Your task to perform on an android device: change the clock display to analog Image 0: 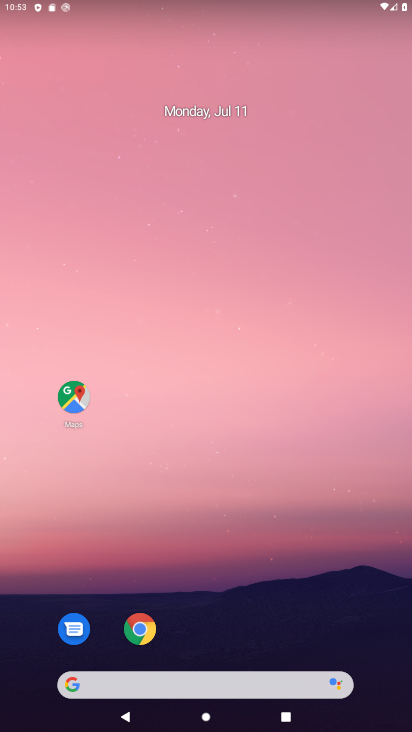
Step 0: drag from (222, 601) to (171, 42)
Your task to perform on an android device: change the clock display to analog Image 1: 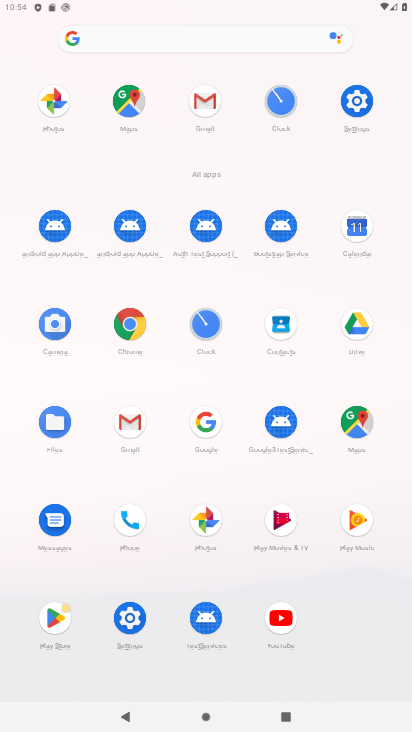
Step 1: drag from (260, 284) to (255, 159)
Your task to perform on an android device: change the clock display to analog Image 2: 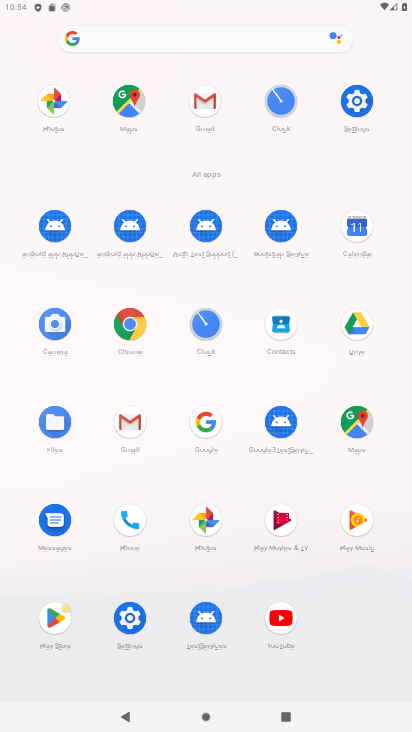
Step 2: click (208, 327)
Your task to perform on an android device: change the clock display to analog Image 3: 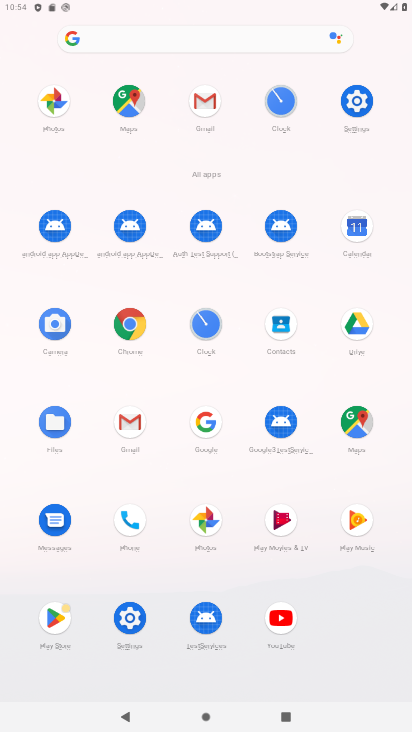
Step 3: click (213, 327)
Your task to perform on an android device: change the clock display to analog Image 4: 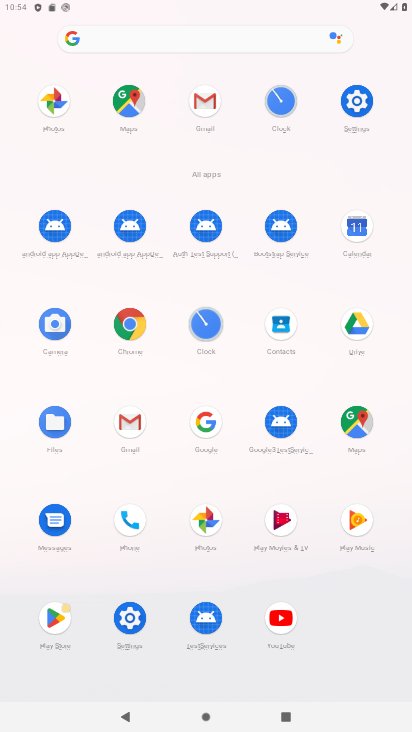
Step 4: click (214, 327)
Your task to perform on an android device: change the clock display to analog Image 5: 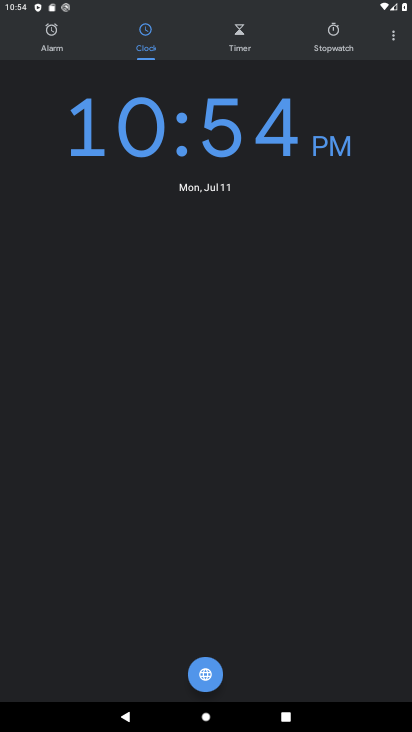
Step 5: click (402, 27)
Your task to perform on an android device: change the clock display to analog Image 6: 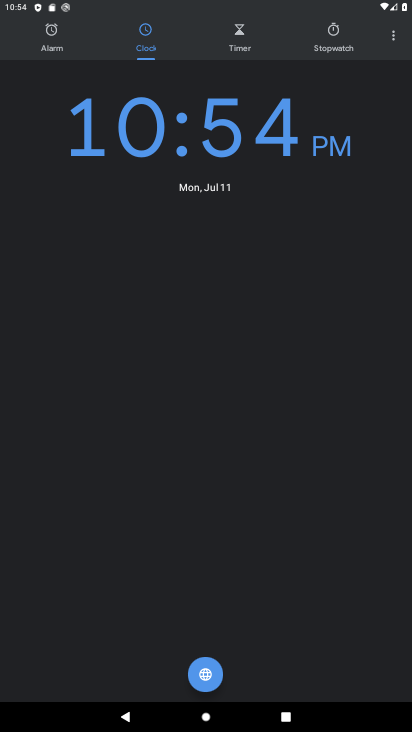
Step 6: click (398, 30)
Your task to perform on an android device: change the clock display to analog Image 7: 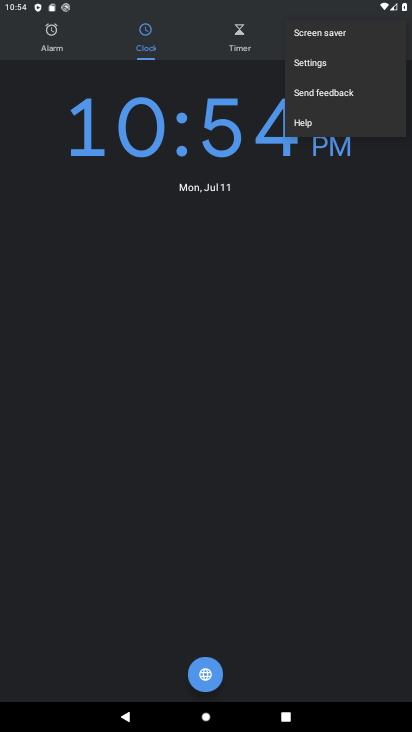
Step 7: click (397, 30)
Your task to perform on an android device: change the clock display to analog Image 8: 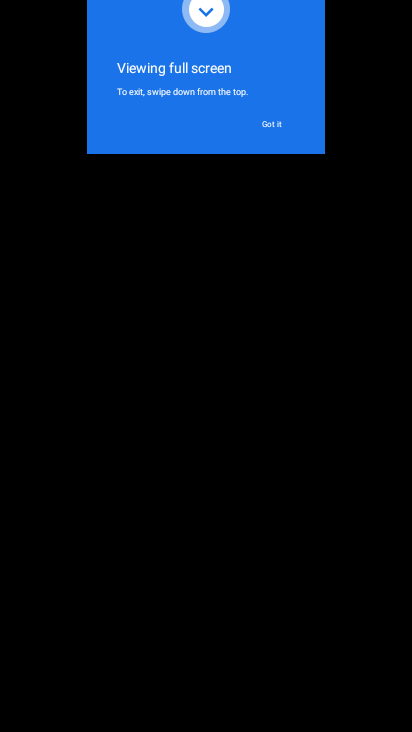
Step 8: click (263, 137)
Your task to perform on an android device: change the clock display to analog Image 9: 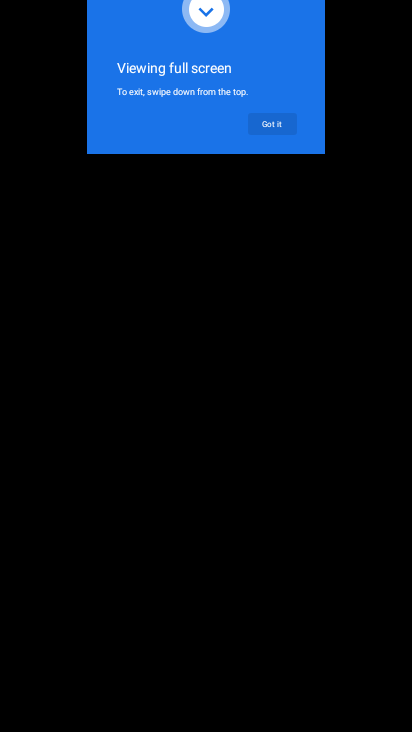
Step 9: click (275, 124)
Your task to perform on an android device: change the clock display to analog Image 10: 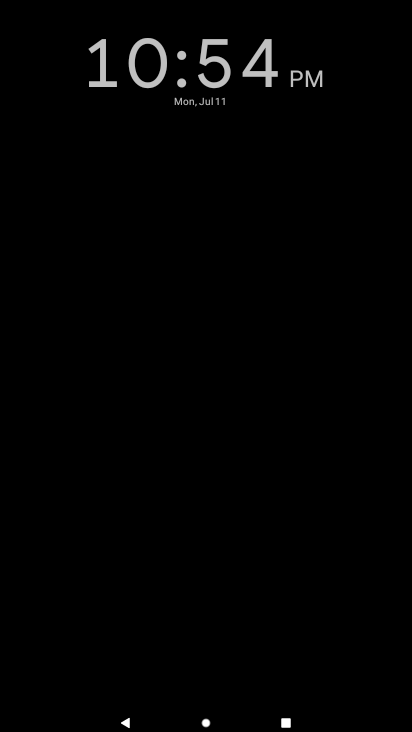
Step 10: click (275, 124)
Your task to perform on an android device: change the clock display to analog Image 11: 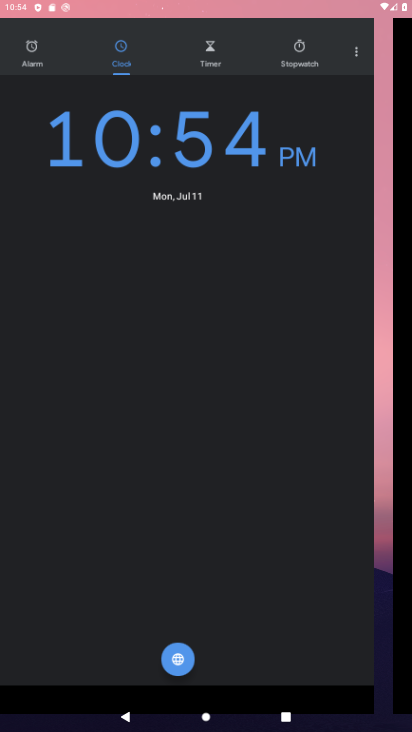
Step 11: click (275, 124)
Your task to perform on an android device: change the clock display to analog Image 12: 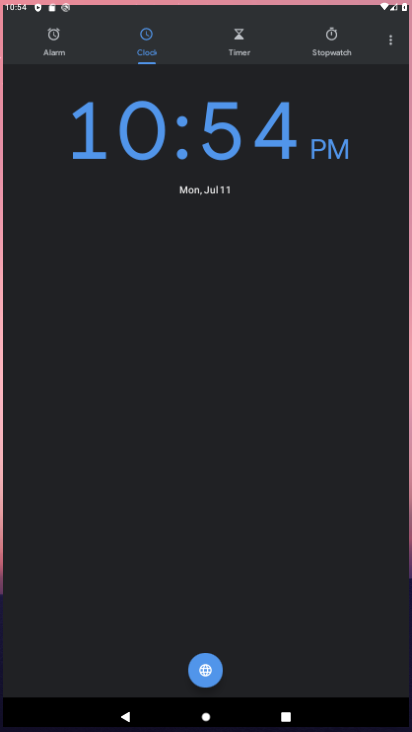
Step 12: click (275, 124)
Your task to perform on an android device: change the clock display to analog Image 13: 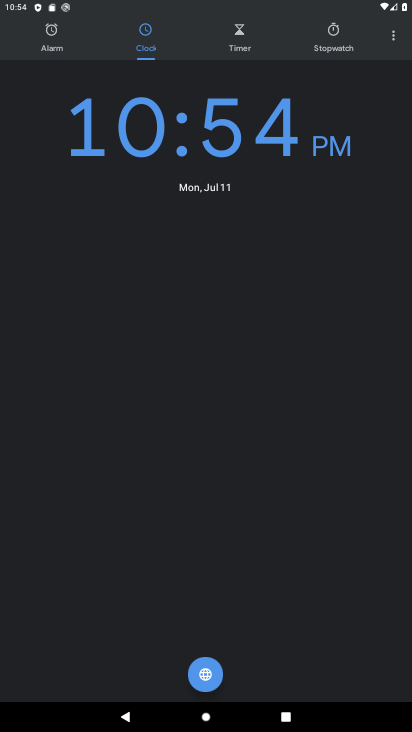
Step 13: click (389, 37)
Your task to perform on an android device: change the clock display to analog Image 14: 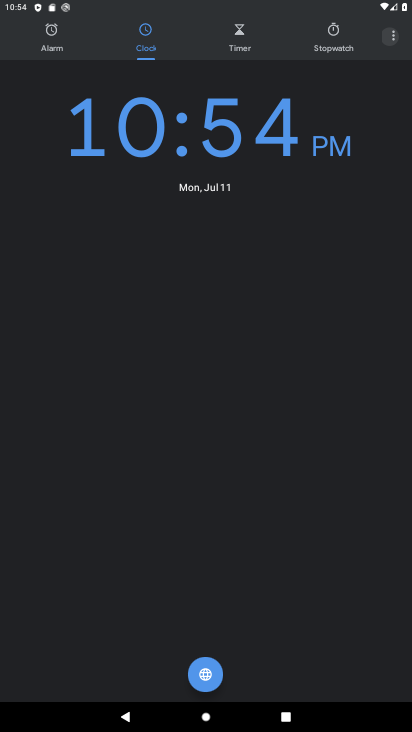
Step 14: click (390, 38)
Your task to perform on an android device: change the clock display to analog Image 15: 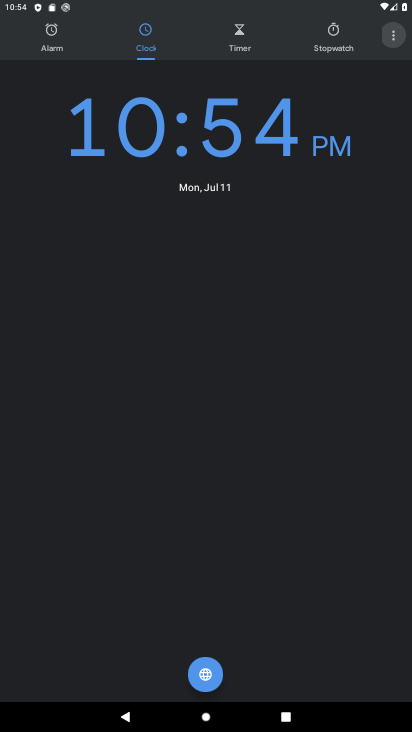
Step 15: click (390, 38)
Your task to perform on an android device: change the clock display to analog Image 16: 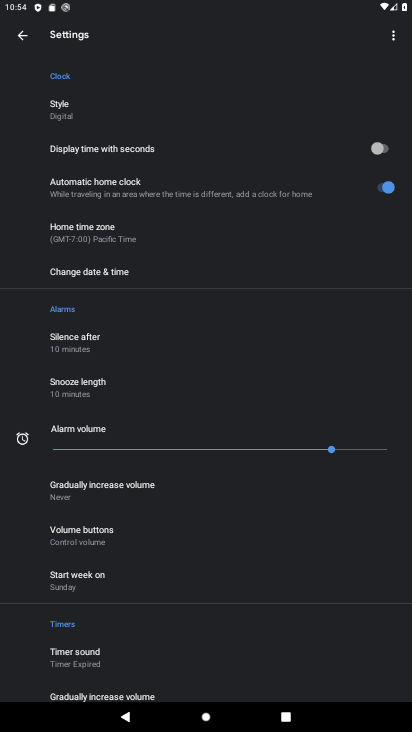
Step 16: click (65, 100)
Your task to perform on an android device: change the clock display to analog Image 17: 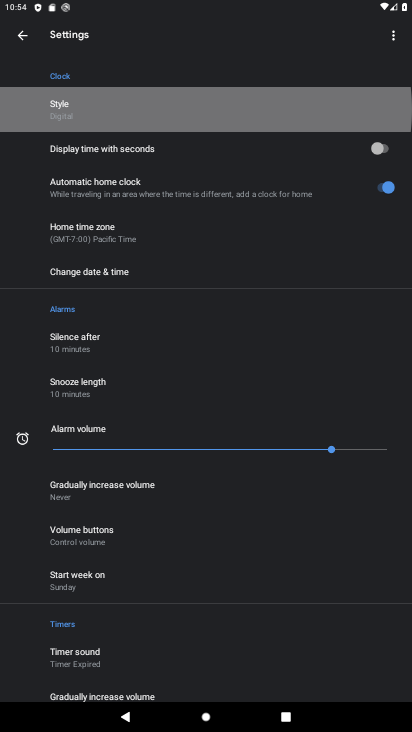
Step 17: click (65, 100)
Your task to perform on an android device: change the clock display to analog Image 18: 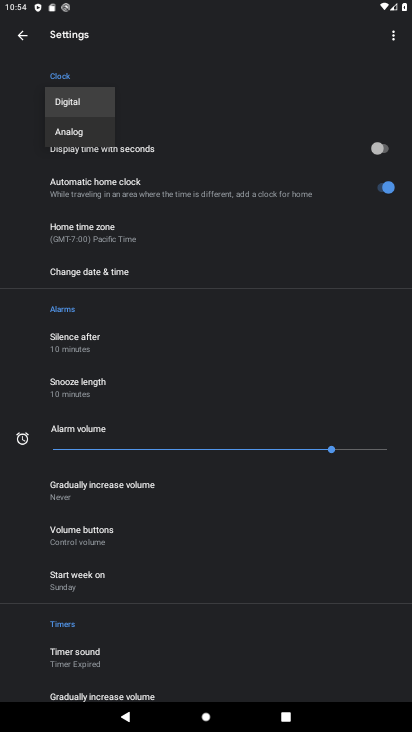
Step 18: click (64, 101)
Your task to perform on an android device: change the clock display to analog Image 19: 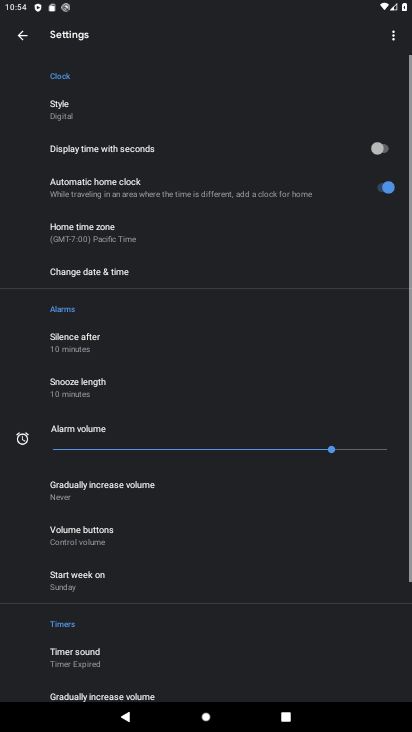
Step 19: click (57, 100)
Your task to perform on an android device: change the clock display to analog Image 20: 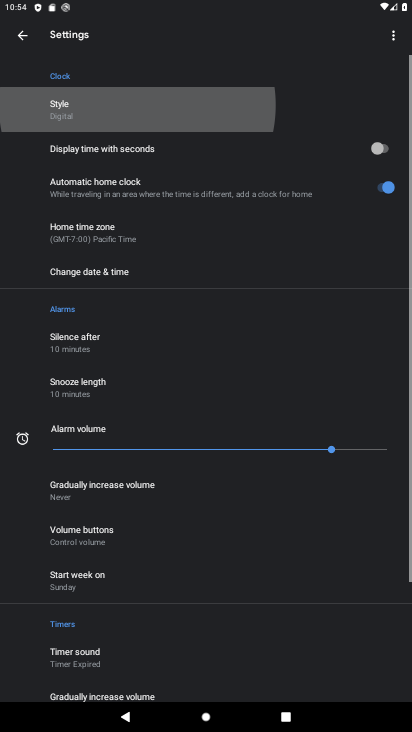
Step 20: click (63, 105)
Your task to perform on an android device: change the clock display to analog Image 21: 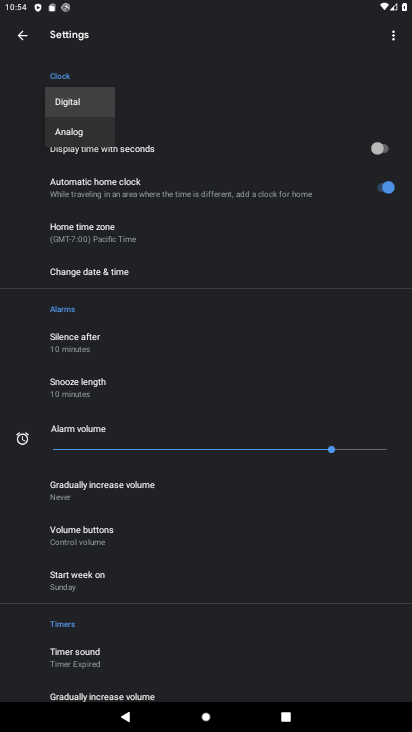
Step 21: click (80, 127)
Your task to perform on an android device: change the clock display to analog Image 22: 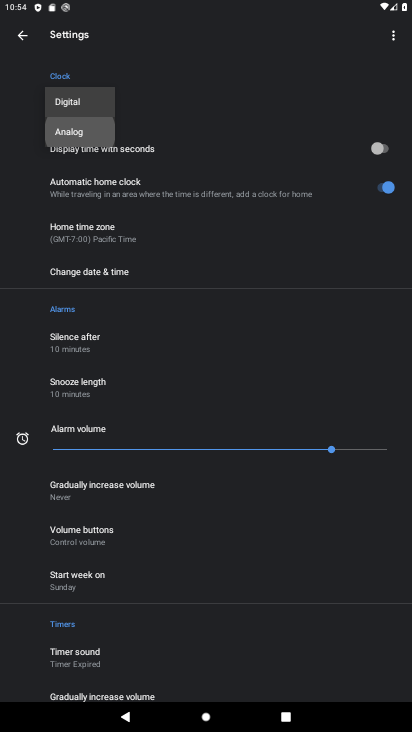
Step 22: click (80, 127)
Your task to perform on an android device: change the clock display to analog Image 23: 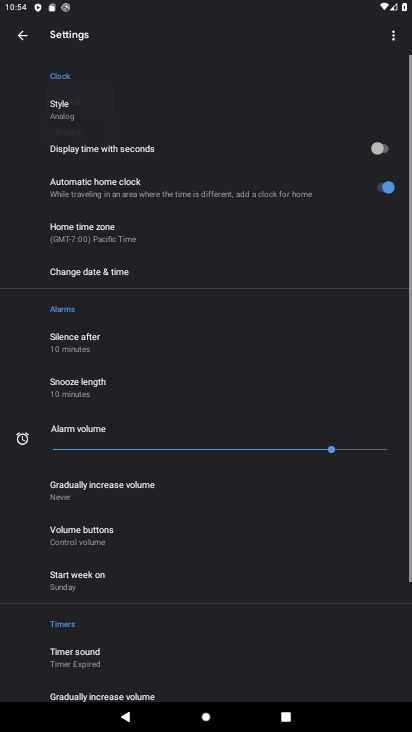
Step 23: click (80, 128)
Your task to perform on an android device: change the clock display to analog Image 24: 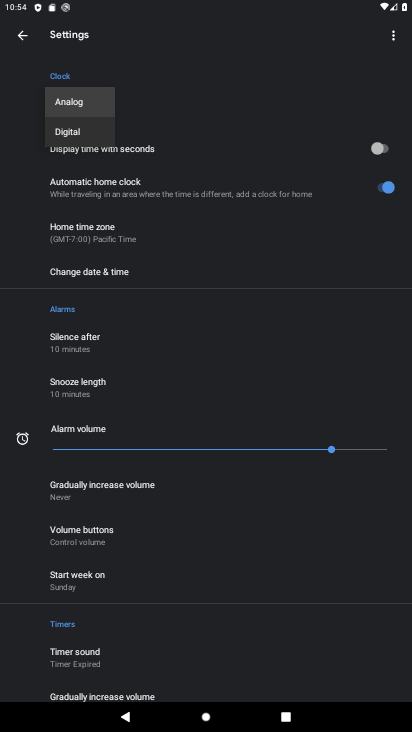
Step 24: click (78, 106)
Your task to perform on an android device: change the clock display to analog Image 25: 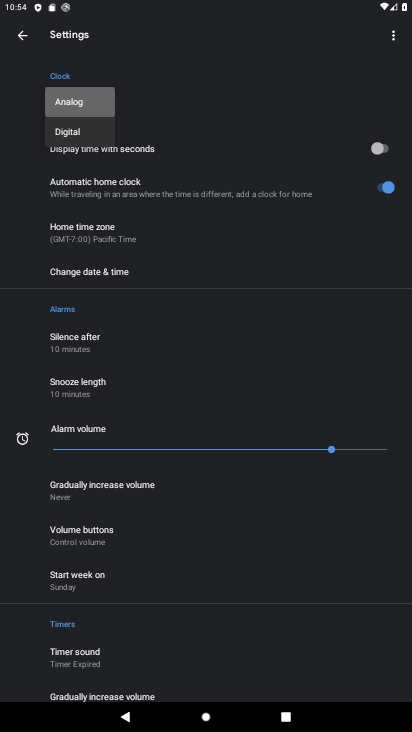
Step 25: click (78, 106)
Your task to perform on an android device: change the clock display to analog Image 26: 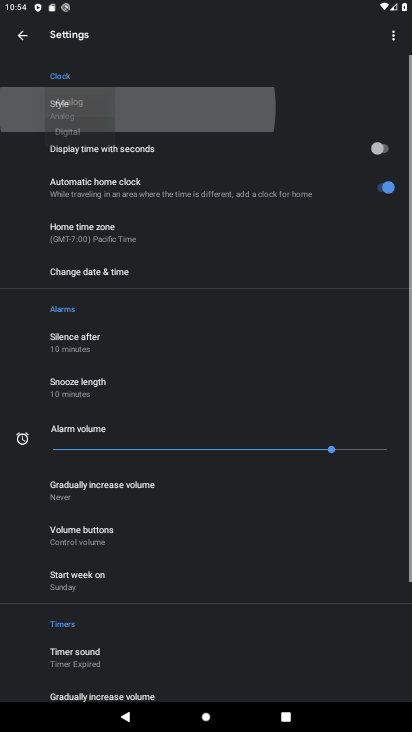
Step 26: click (77, 105)
Your task to perform on an android device: change the clock display to analog Image 27: 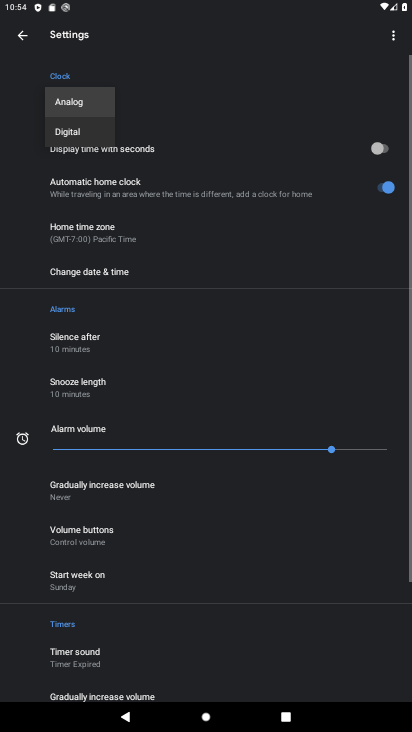
Step 27: task complete